Your task to perform on an android device: When is my next appointment? Image 0: 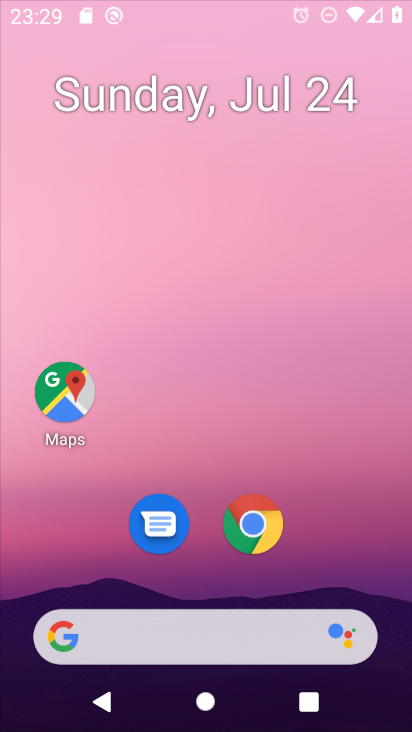
Step 0: press home button
Your task to perform on an android device: When is my next appointment? Image 1: 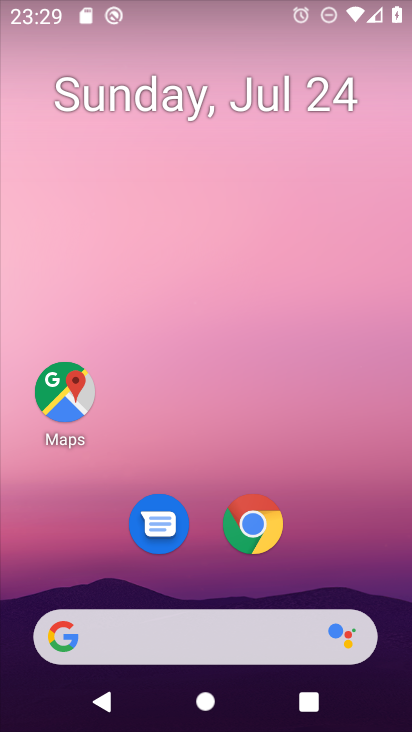
Step 1: drag from (198, 636) to (332, 112)
Your task to perform on an android device: When is my next appointment? Image 2: 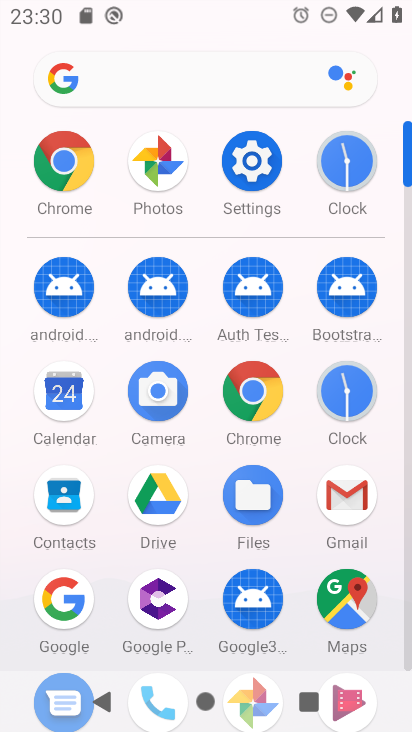
Step 2: click (54, 392)
Your task to perform on an android device: When is my next appointment? Image 3: 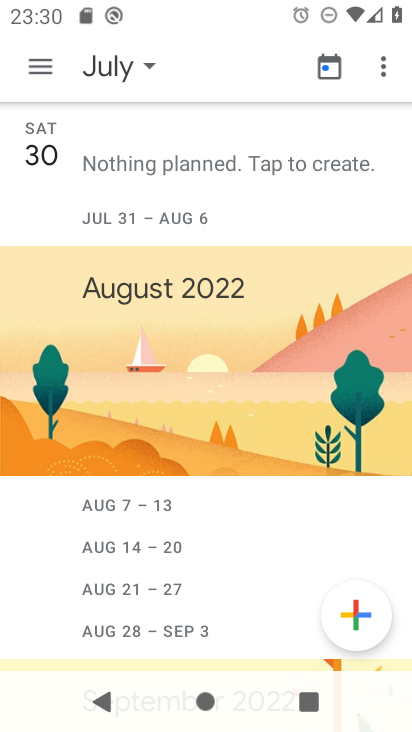
Step 3: task complete